Your task to perform on an android device: change notification settings in the gmail app Image 0: 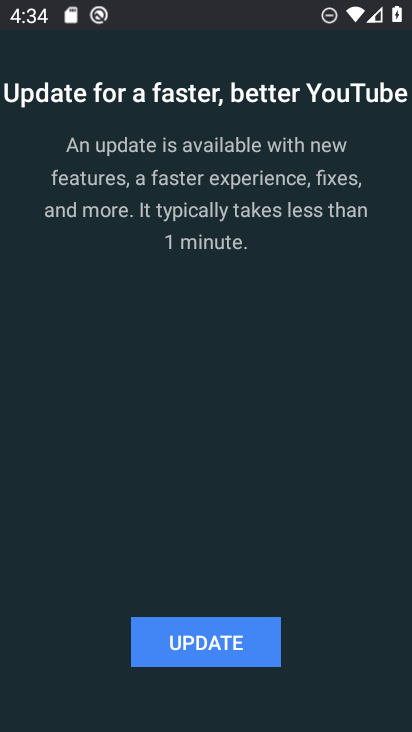
Step 0: press home button
Your task to perform on an android device: change notification settings in the gmail app Image 1: 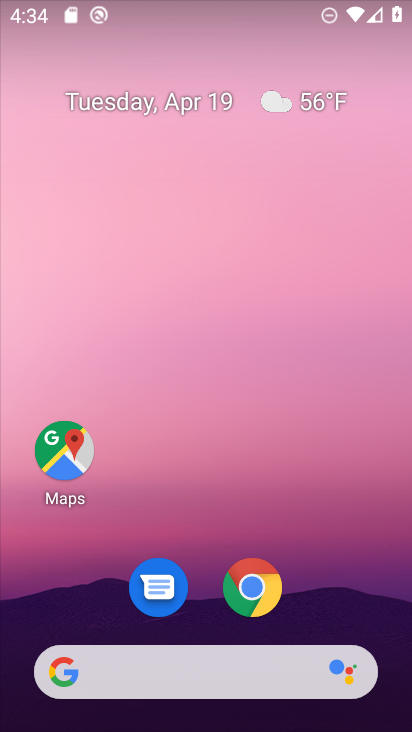
Step 1: drag from (206, 724) to (204, 59)
Your task to perform on an android device: change notification settings in the gmail app Image 2: 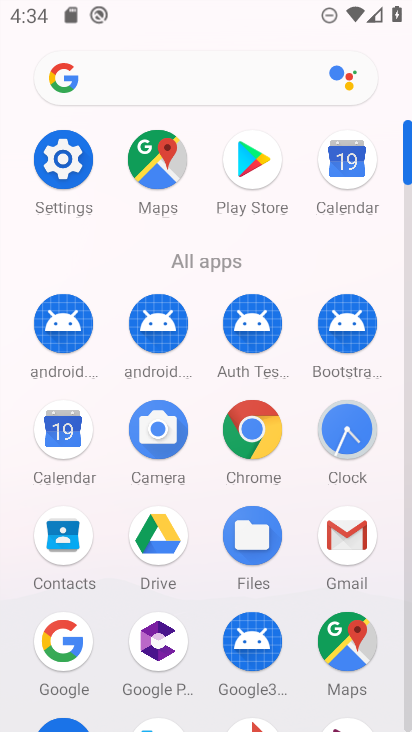
Step 2: click (347, 531)
Your task to perform on an android device: change notification settings in the gmail app Image 3: 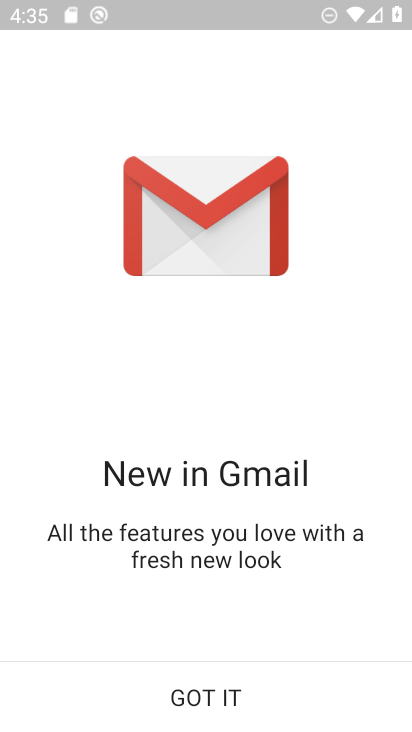
Step 3: click (199, 693)
Your task to perform on an android device: change notification settings in the gmail app Image 4: 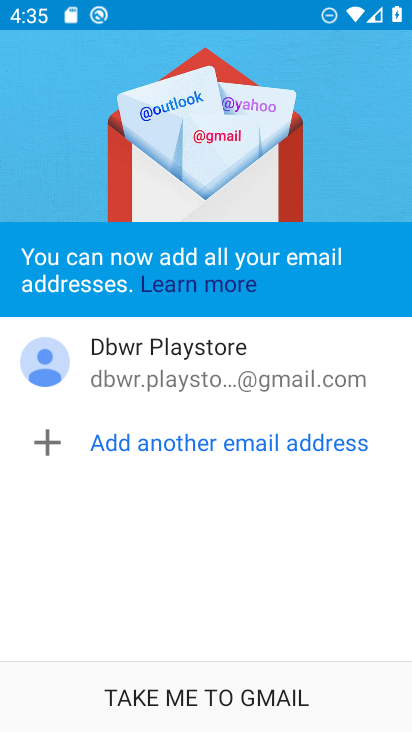
Step 4: click (200, 694)
Your task to perform on an android device: change notification settings in the gmail app Image 5: 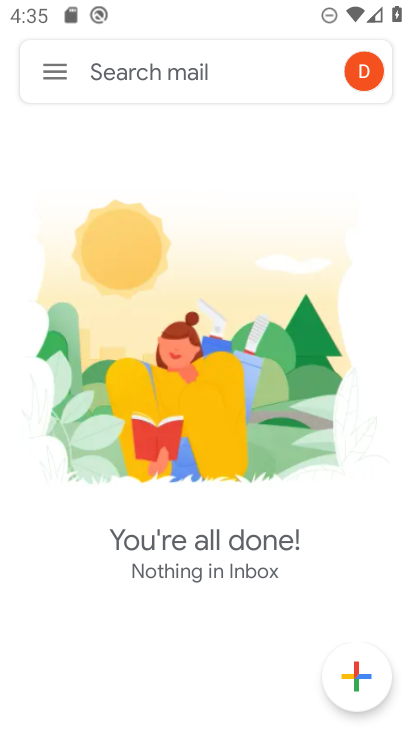
Step 5: click (55, 74)
Your task to perform on an android device: change notification settings in the gmail app Image 6: 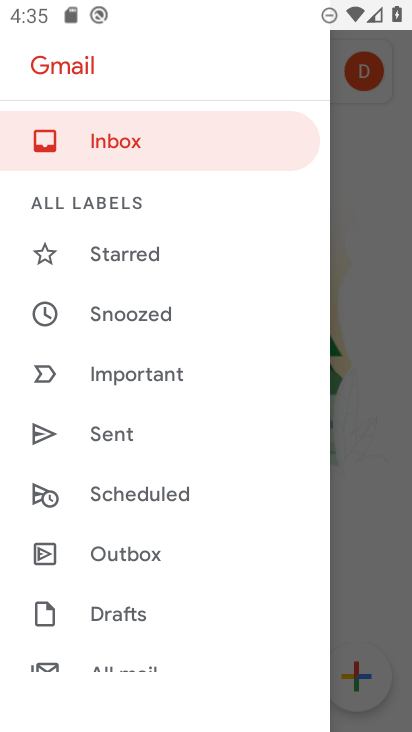
Step 6: drag from (141, 649) to (146, 125)
Your task to perform on an android device: change notification settings in the gmail app Image 7: 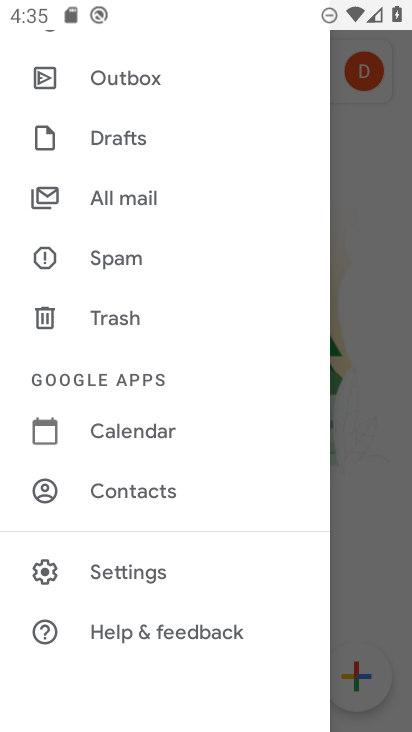
Step 7: click (133, 570)
Your task to perform on an android device: change notification settings in the gmail app Image 8: 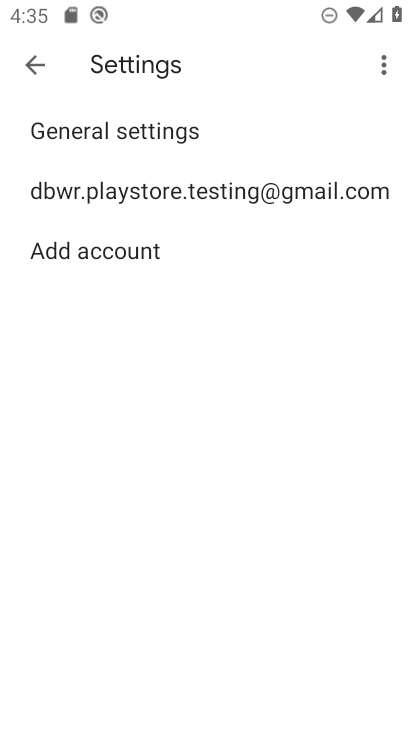
Step 8: click (173, 189)
Your task to perform on an android device: change notification settings in the gmail app Image 9: 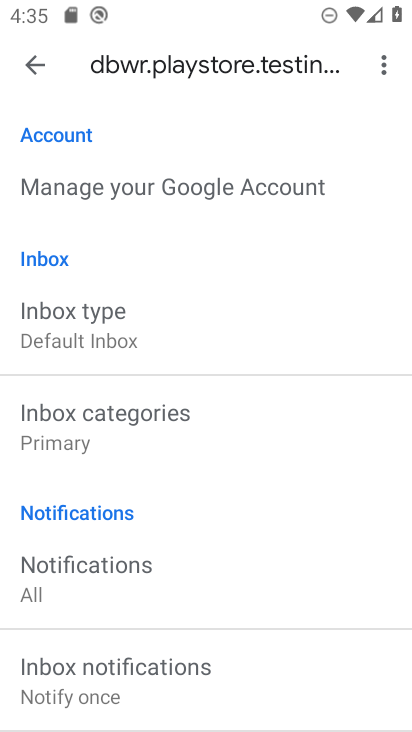
Step 9: drag from (212, 618) to (215, 304)
Your task to perform on an android device: change notification settings in the gmail app Image 10: 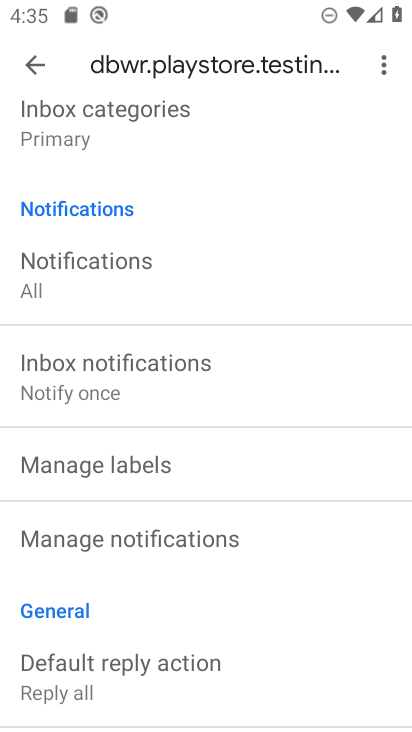
Step 10: click (71, 262)
Your task to perform on an android device: change notification settings in the gmail app Image 11: 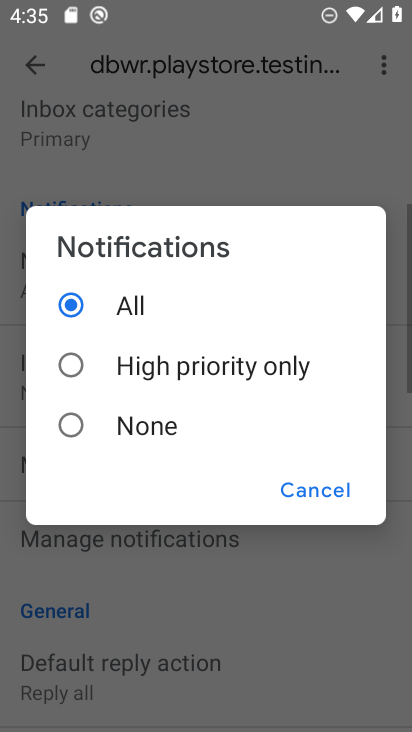
Step 11: click (72, 422)
Your task to perform on an android device: change notification settings in the gmail app Image 12: 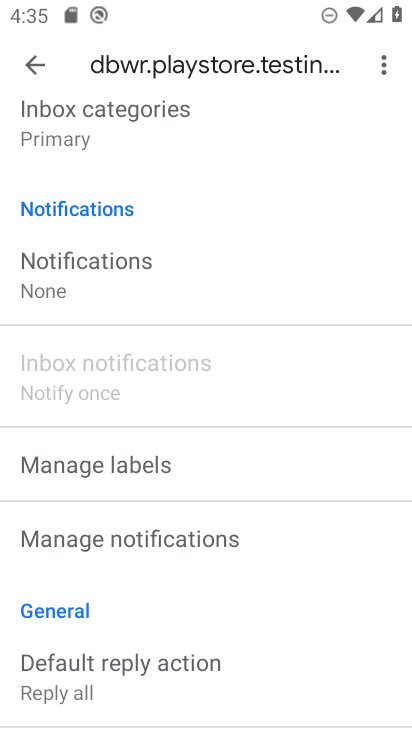
Step 12: task complete